Your task to perform on an android device: find photos in the google photos app Image 0: 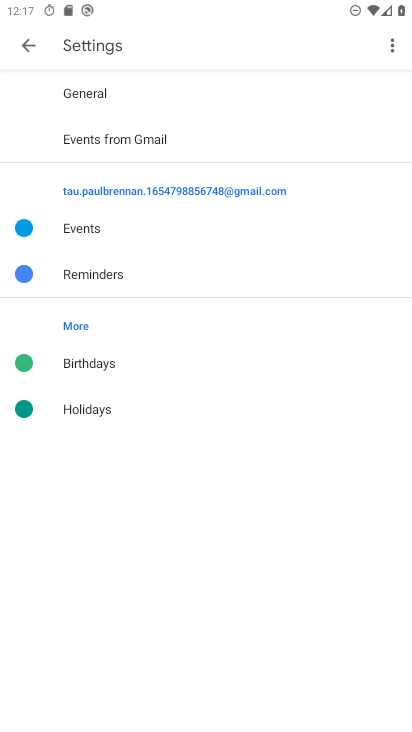
Step 0: press home button
Your task to perform on an android device: find photos in the google photos app Image 1: 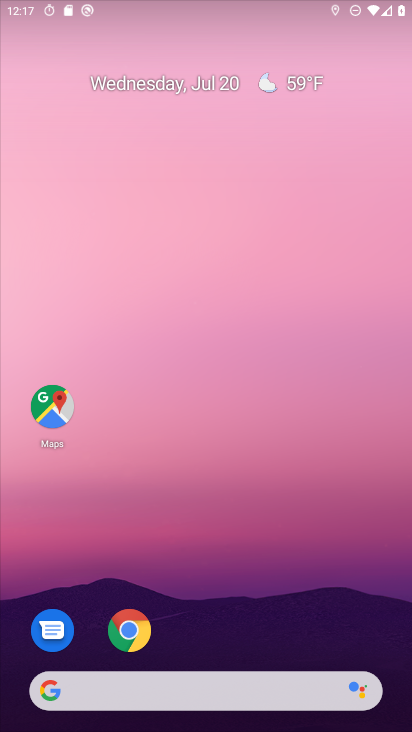
Step 1: drag from (185, 696) to (236, 33)
Your task to perform on an android device: find photos in the google photos app Image 2: 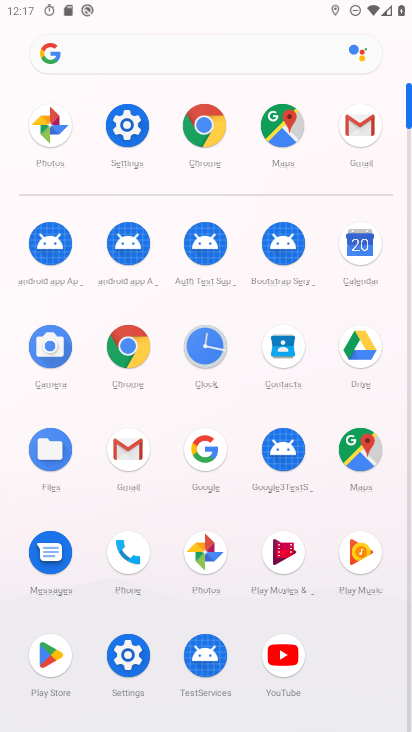
Step 2: click (209, 550)
Your task to perform on an android device: find photos in the google photos app Image 3: 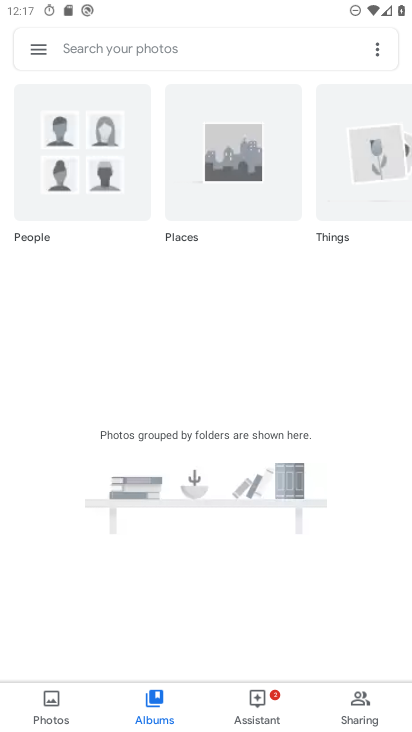
Step 3: click (53, 704)
Your task to perform on an android device: find photos in the google photos app Image 4: 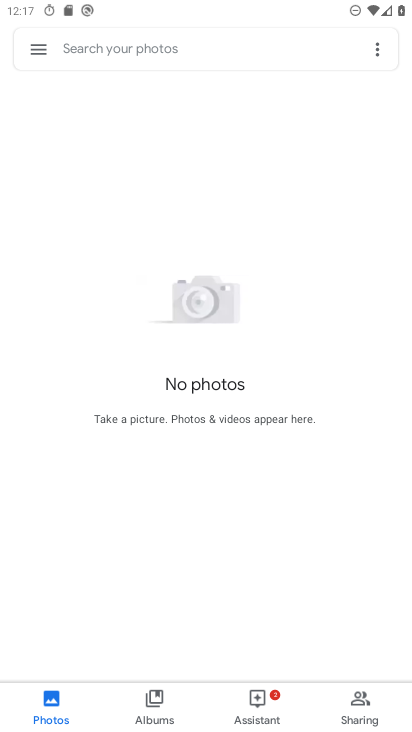
Step 4: task complete